Your task to perform on an android device: Open the map Image 0: 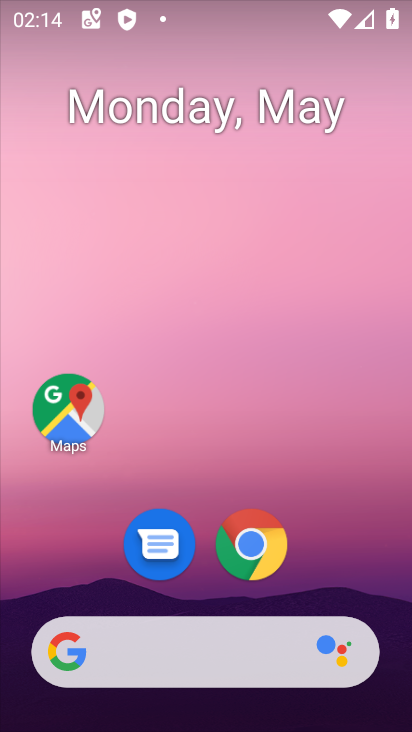
Step 0: drag from (376, 557) to (371, 267)
Your task to perform on an android device: Open the map Image 1: 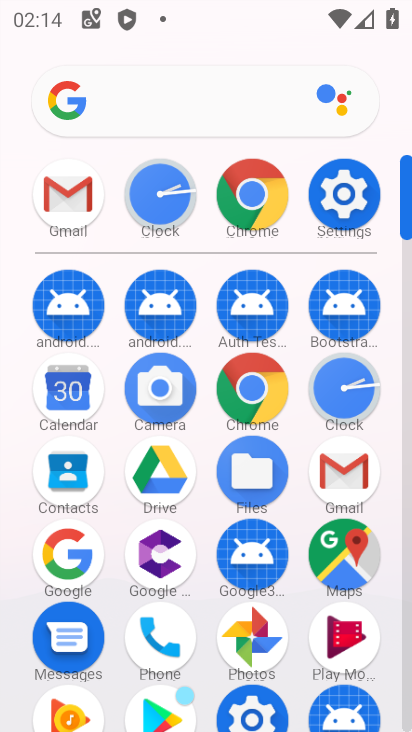
Step 1: click (364, 557)
Your task to perform on an android device: Open the map Image 2: 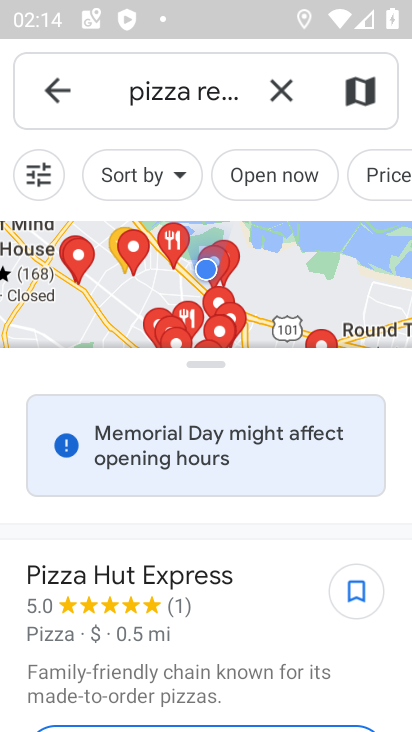
Step 2: task complete